Your task to perform on an android device: Is it going to rain tomorrow? Image 0: 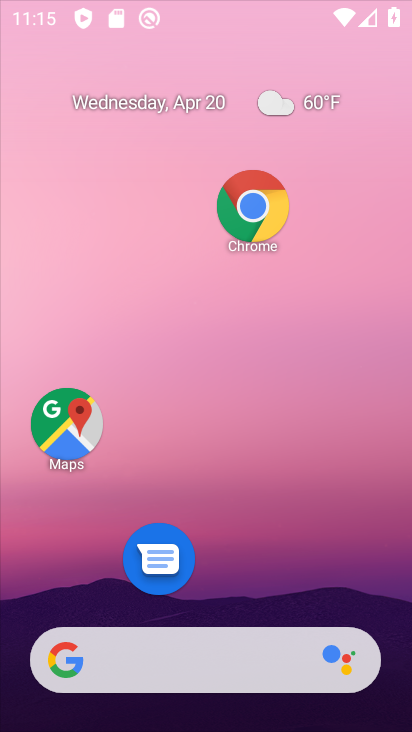
Step 0: click (361, 21)
Your task to perform on an android device: Is it going to rain tomorrow? Image 1: 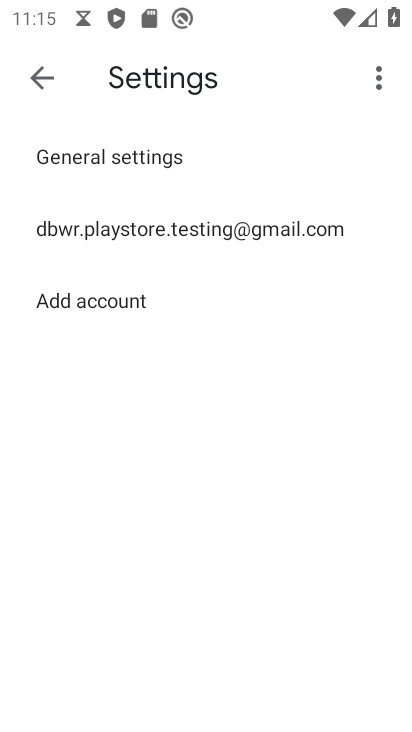
Step 1: press home button
Your task to perform on an android device: Is it going to rain tomorrow? Image 2: 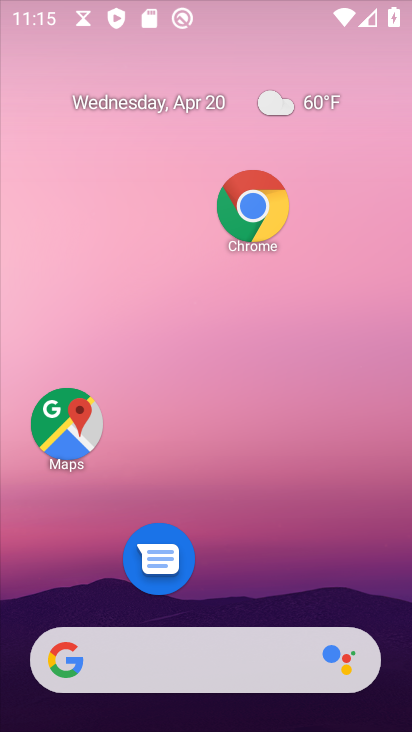
Step 2: drag from (206, 662) to (310, 25)
Your task to perform on an android device: Is it going to rain tomorrow? Image 3: 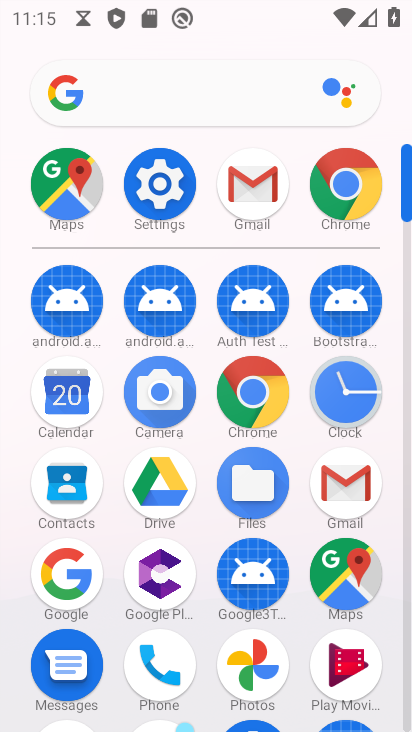
Step 3: click (271, 397)
Your task to perform on an android device: Is it going to rain tomorrow? Image 4: 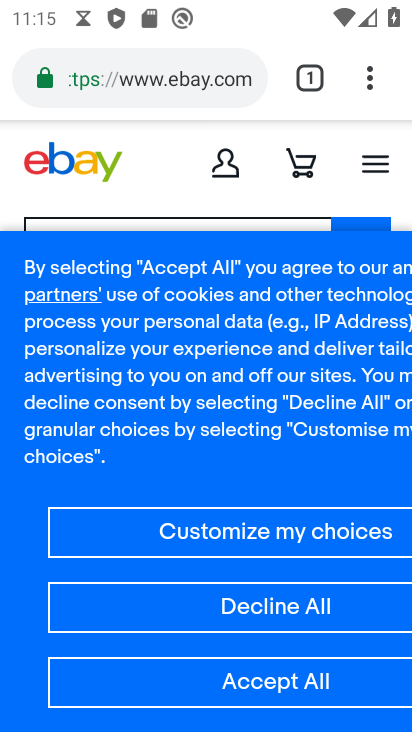
Step 4: click (188, 70)
Your task to perform on an android device: Is it going to rain tomorrow? Image 5: 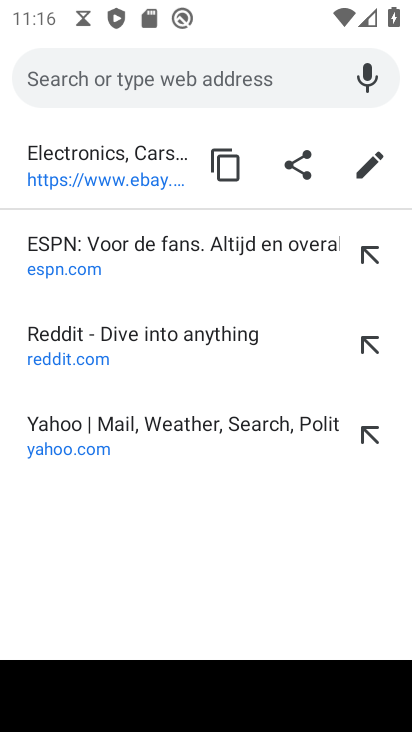
Step 5: type "rain tomorrow"
Your task to perform on an android device: Is it going to rain tomorrow? Image 6: 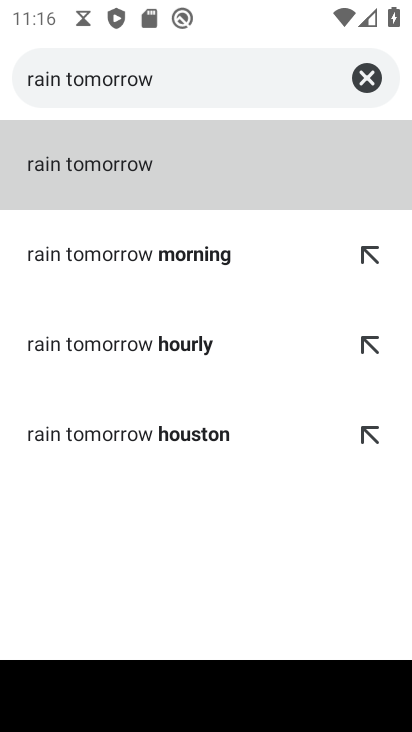
Step 6: click (147, 122)
Your task to perform on an android device: Is it going to rain tomorrow? Image 7: 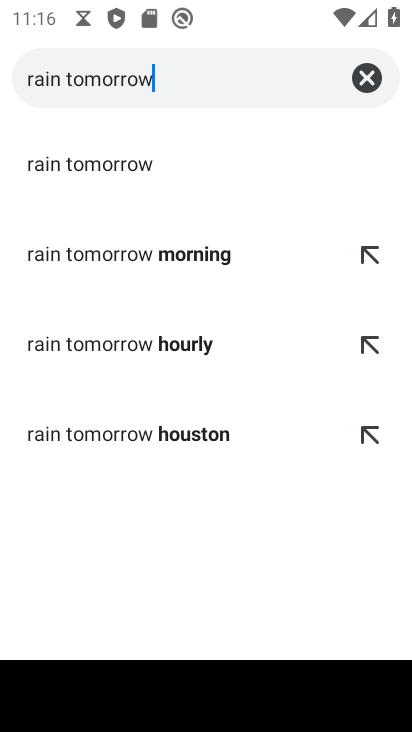
Step 7: click (159, 160)
Your task to perform on an android device: Is it going to rain tomorrow? Image 8: 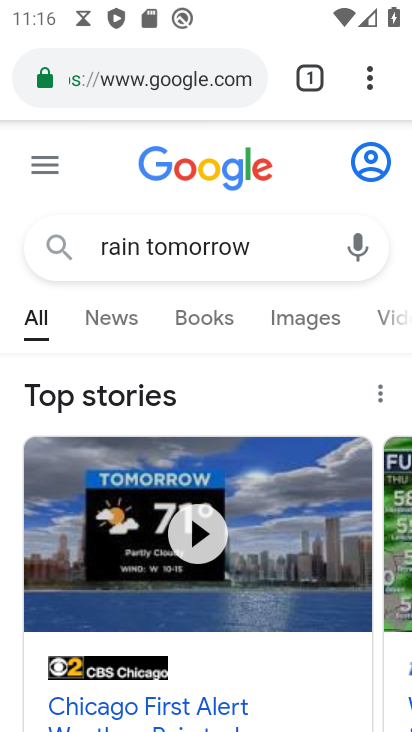
Step 8: task complete